Your task to perform on an android device: Go to Google maps Image 0: 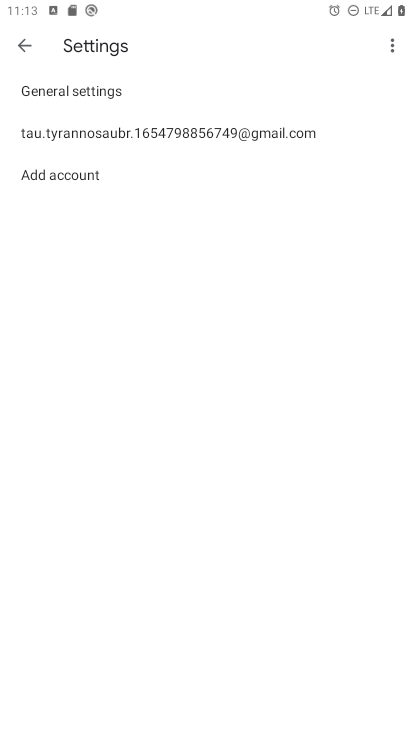
Step 0: press home button
Your task to perform on an android device: Go to Google maps Image 1: 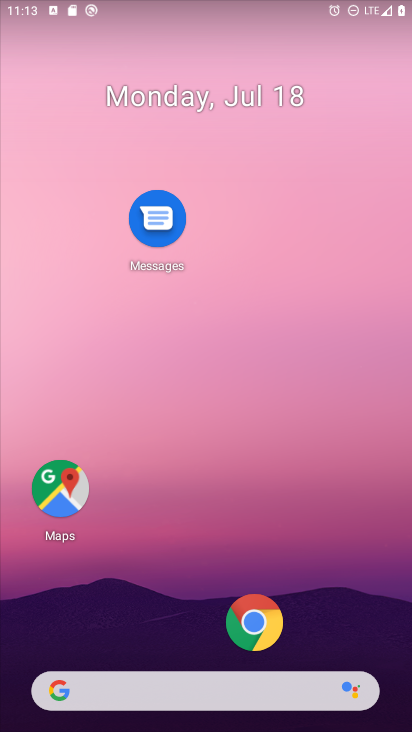
Step 1: drag from (197, 650) to (225, 94)
Your task to perform on an android device: Go to Google maps Image 2: 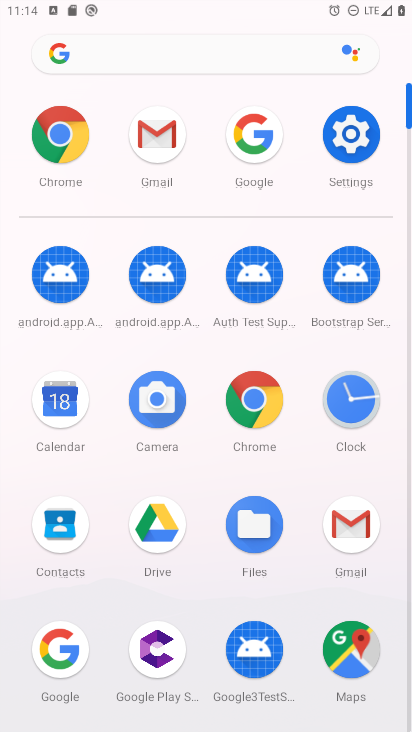
Step 2: click (352, 669)
Your task to perform on an android device: Go to Google maps Image 3: 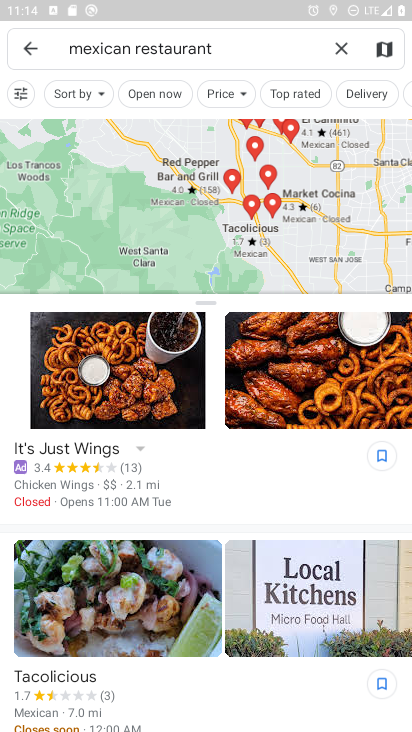
Step 3: task complete